Your task to perform on an android device: turn pop-ups on in chrome Image 0: 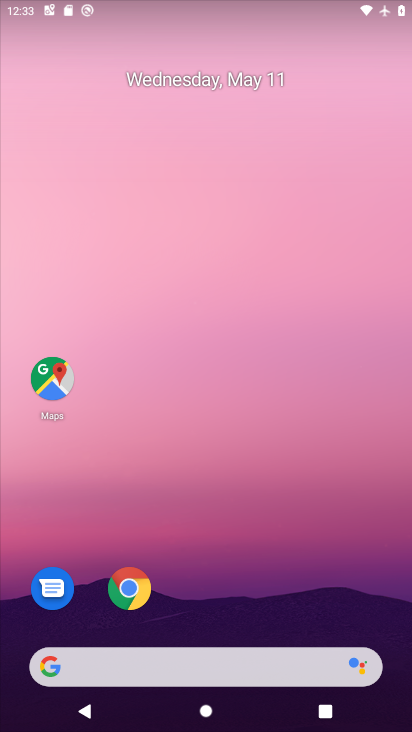
Step 0: drag from (213, 644) to (199, 283)
Your task to perform on an android device: turn pop-ups on in chrome Image 1: 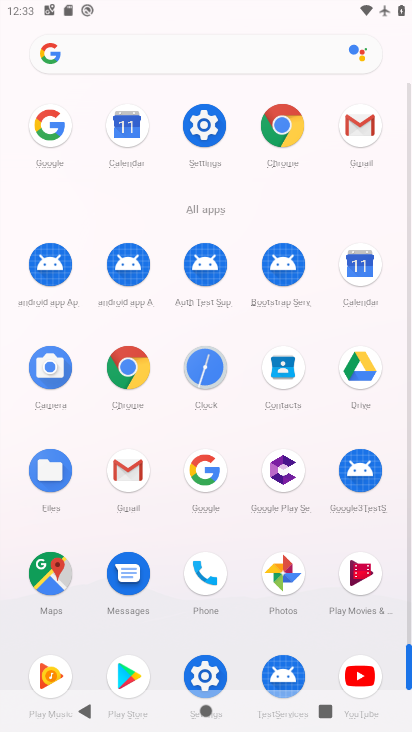
Step 1: click (203, 140)
Your task to perform on an android device: turn pop-ups on in chrome Image 2: 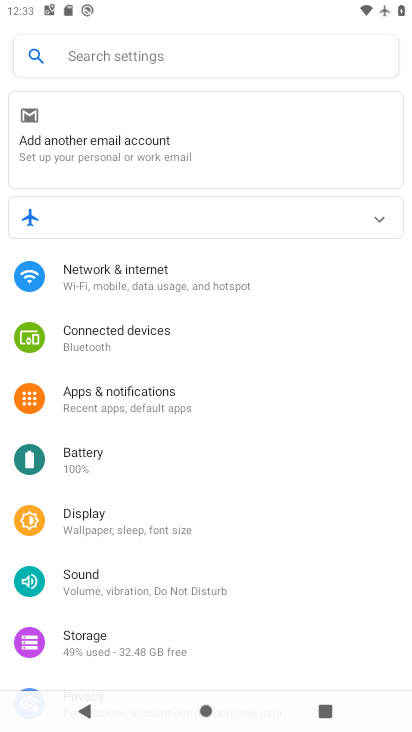
Step 2: press home button
Your task to perform on an android device: turn pop-ups on in chrome Image 3: 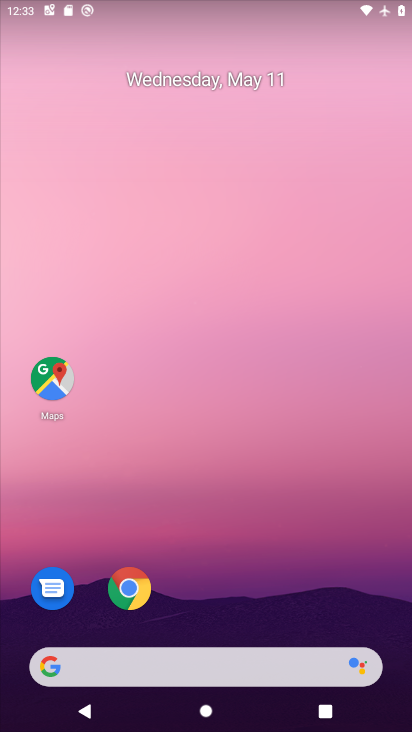
Step 3: click (131, 589)
Your task to perform on an android device: turn pop-ups on in chrome Image 4: 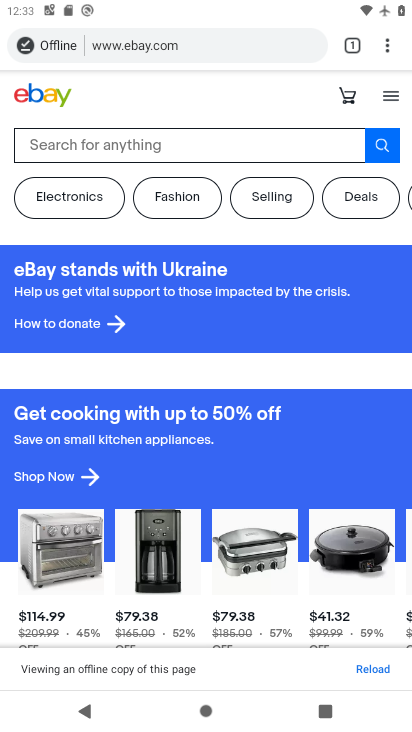
Step 4: click (388, 44)
Your task to perform on an android device: turn pop-ups on in chrome Image 5: 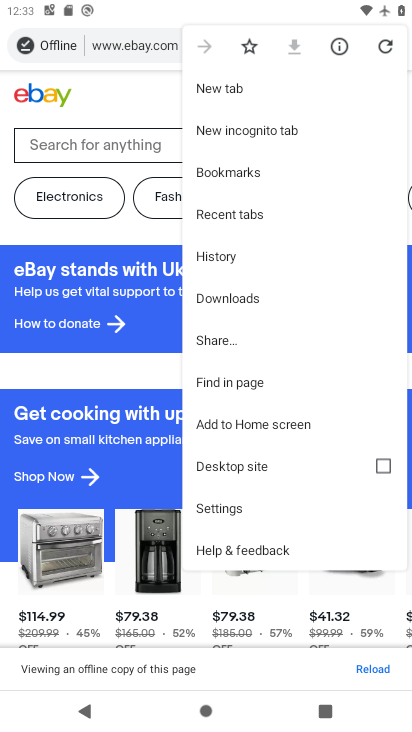
Step 5: click (211, 514)
Your task to perform on an android device: turn pop-ups on in chrome Image 6: 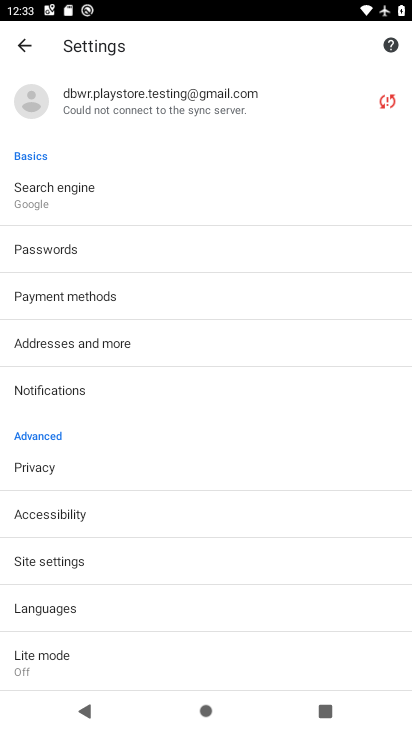
Step 6: drag from (122, 653) to (157, 325)
Your task to perform on an android device: turn pop-ups on in chrome Image 7: 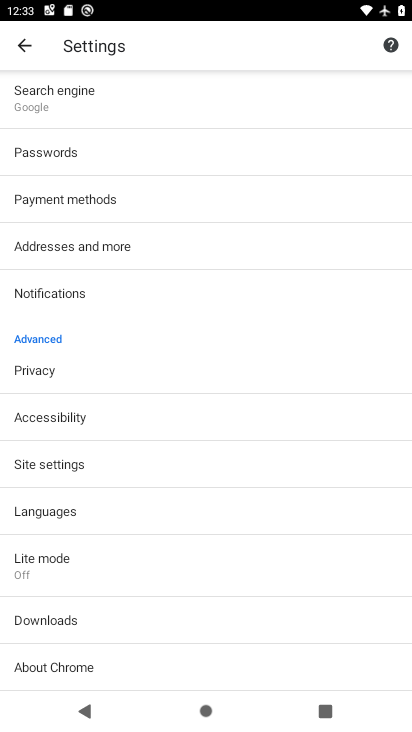
Step 7: click (31, 471)
Your task to perform on an android device: turn pop-ups on in chrome Image 8: 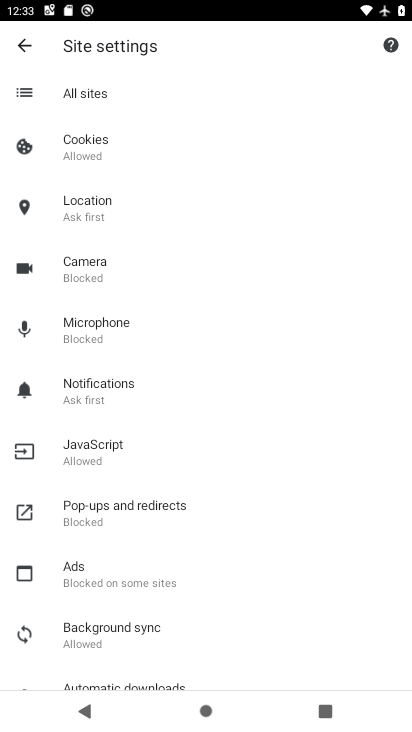
Step 8: click (104, 513)
Your task to perform on an android device: turn pop-ups on in chrome Image 9: 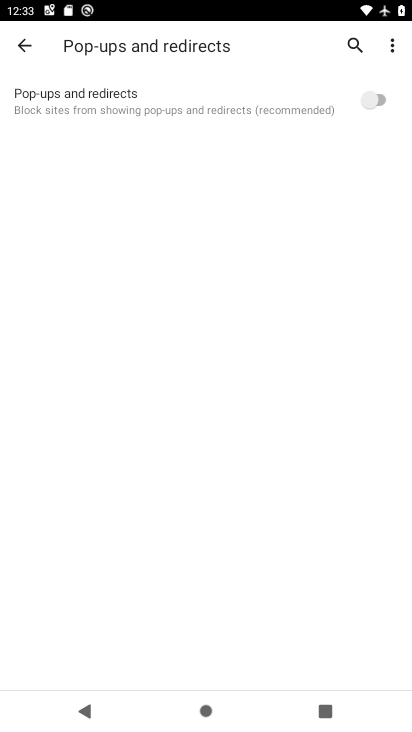
Step 9: click (378, 94)
Your task to perform on an android device: turn pop-ups on in chrome Image 10: 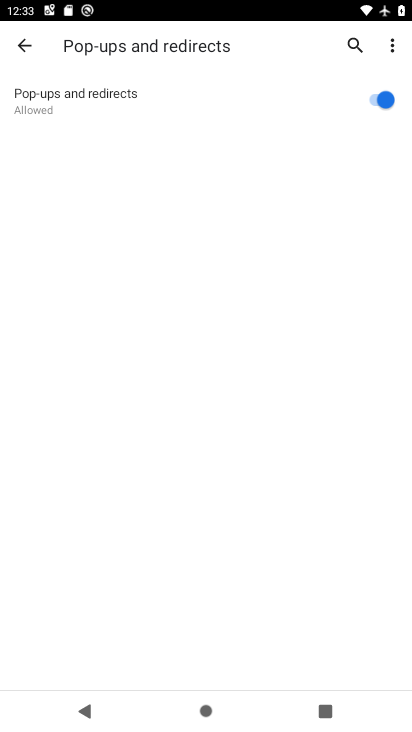
Step 10: task complete